Your task to perform on an android device: Open Amazon Image 0: 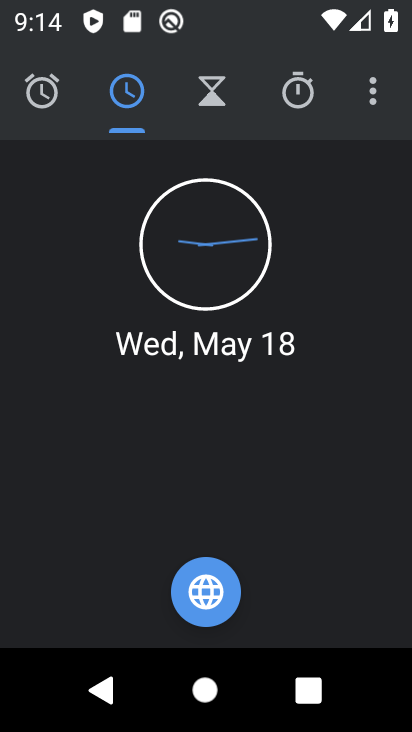
Step 0: press home button
Your task to perform on an android device: Open Amazon Image 1: 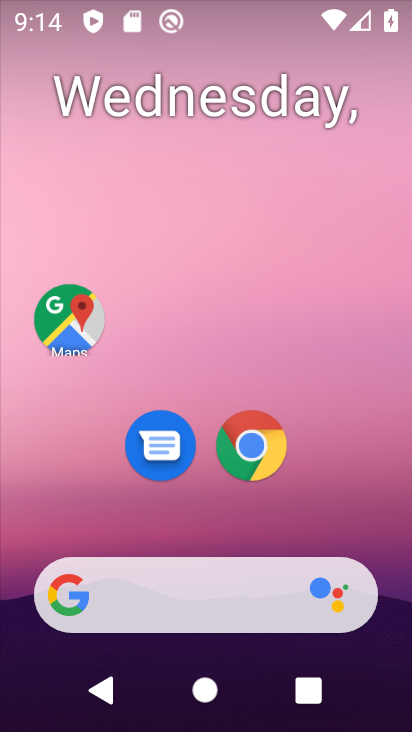
Step 1: drag from (363, 490) to (324, 111)
Your task to perform on an android device: Open Amazon Image 2: 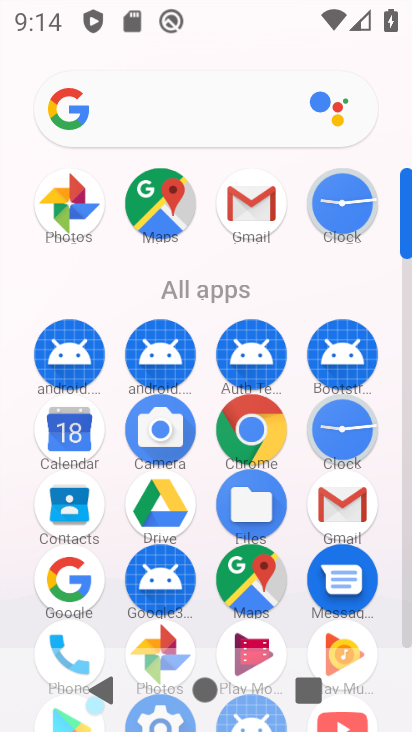
Step 2: drag from (393, 592) to (374, 313)
Your task to perform on an android device: Open Amazon Image 3: 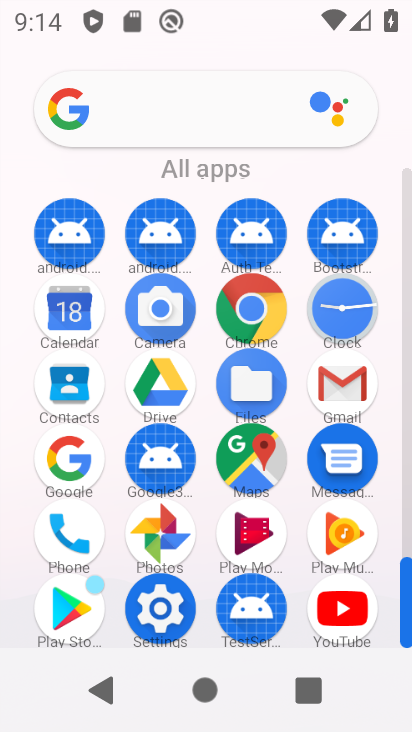
Step 3: drag from (403, 454) to (408, 594)
Your task to perform on an android device: Open Amazon Image 4: 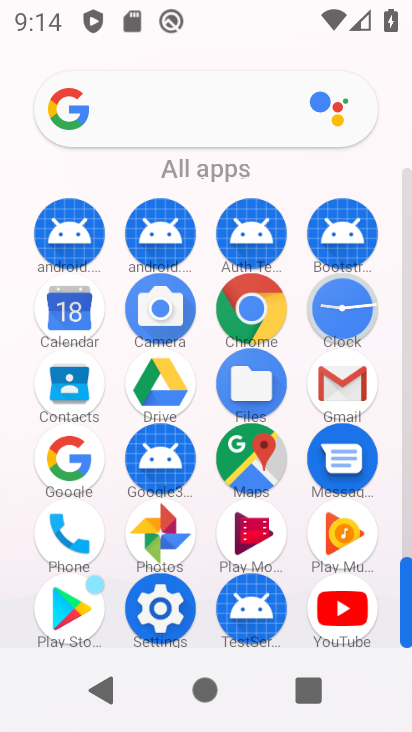
Step 4: drag from (394, 338) to (411, 495)
Your task to perform on an android device: Open Amazon Image 5: 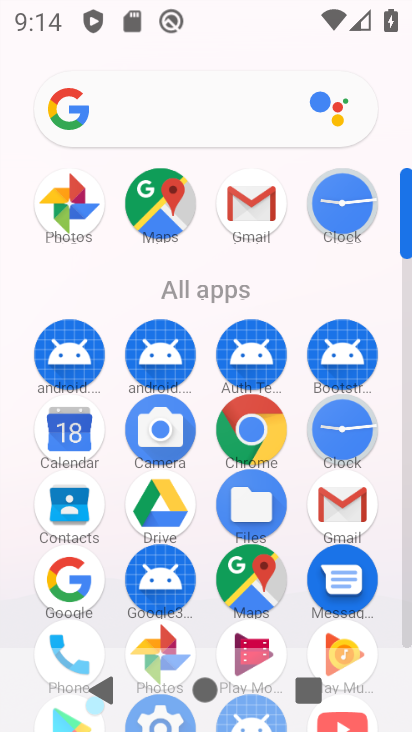
Step 5: drag from (396, 304) to (410, 387)
Your task to perform on an android device: Open Amazon Image 6: 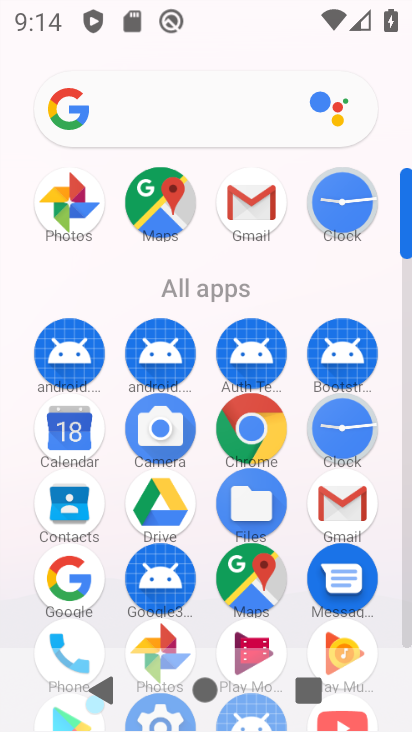
Step 6: drag from (405, 390) to (371, 179)
Your task to perform on an android device: Open Amazon Image 7: 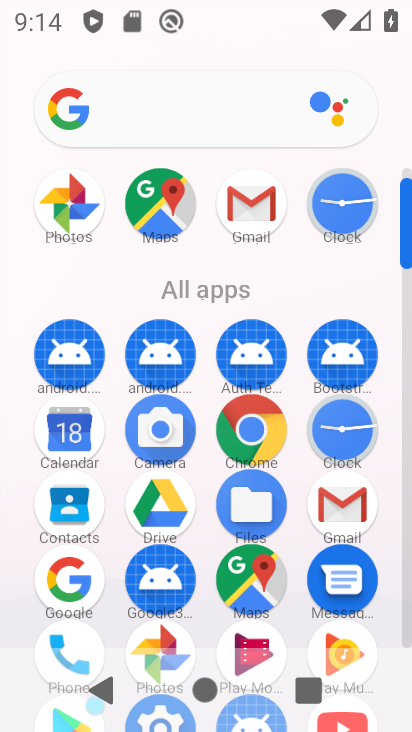
Step 7: click (255, 430)
Your task to perform on an android device: Open Amazon Image 8: 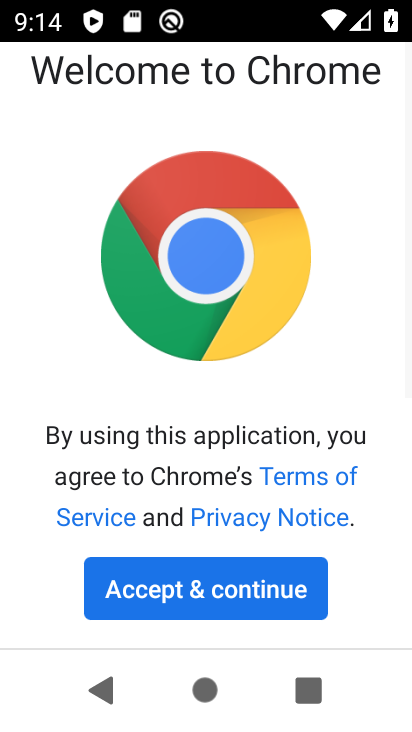
Step 8: click (250, 590)
Your task to perform on an android device: Open Amazon Image 9: 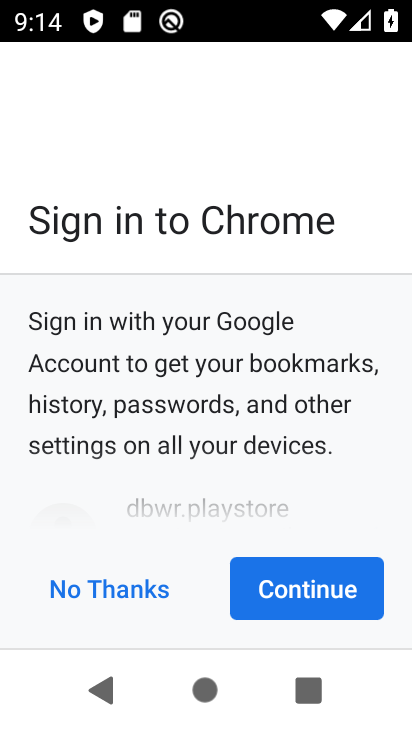
Step 9: click (129, 579)
Your task to perform on an android device: Open Amazon Image 10: 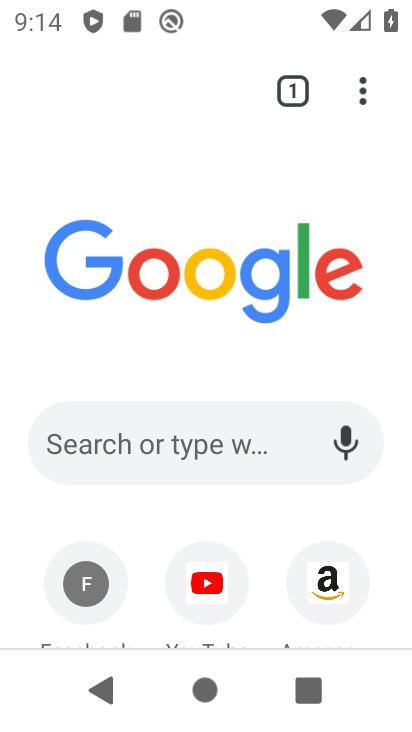
Step 10: click (330, 598)
Your task to perform on an android device: Open Amazon Image 11: 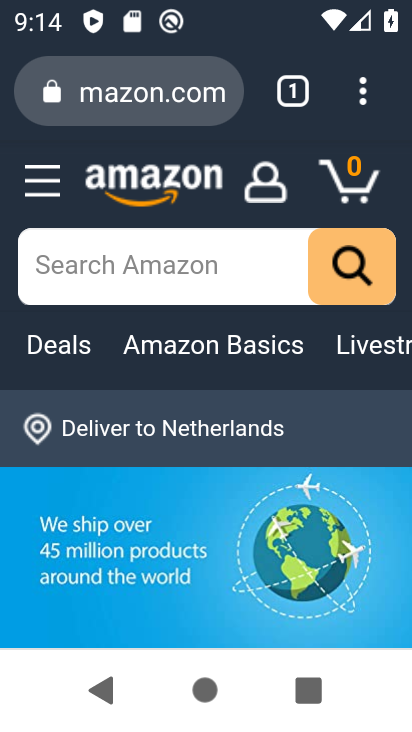
Step 11: task complete